Your task to perform on an android device: Go to privacy settings Image 0: 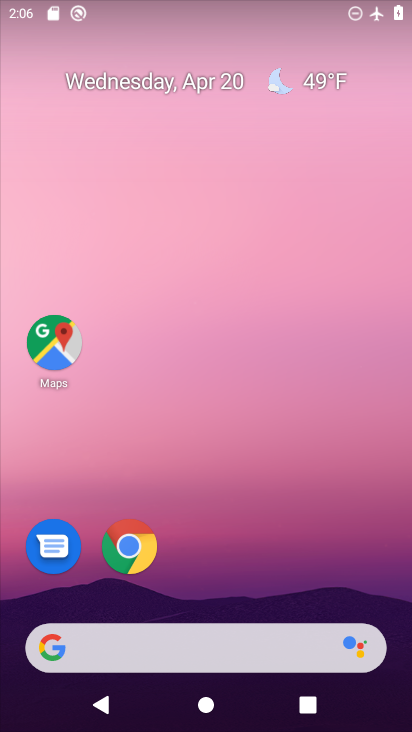
Step 0: drag from (215, 472) to (310, 1)
Your task to perform on an android device: Go to privacy settings Image 1: 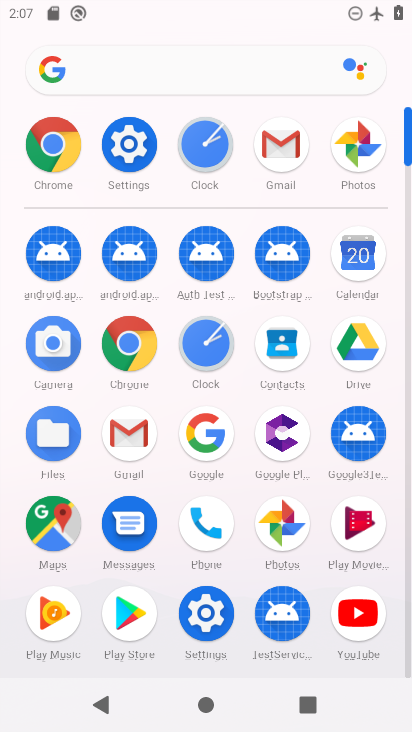
Step 1: click (144, 139)
Your task to perform on an android device: Go to privacy settings Image 2: 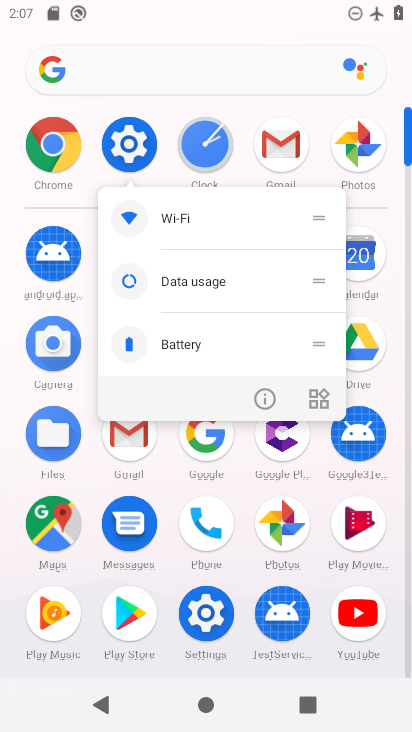
Step 2: click (142, 139)
Your task to perform on an android device: Go to privacy settings Image 3: 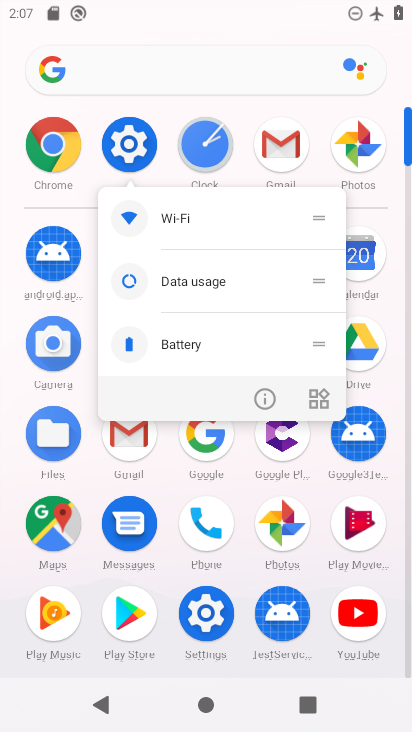
Step 3: click (123, 140)
Your task to perform on an android device: Go to privacy settings Image 4: 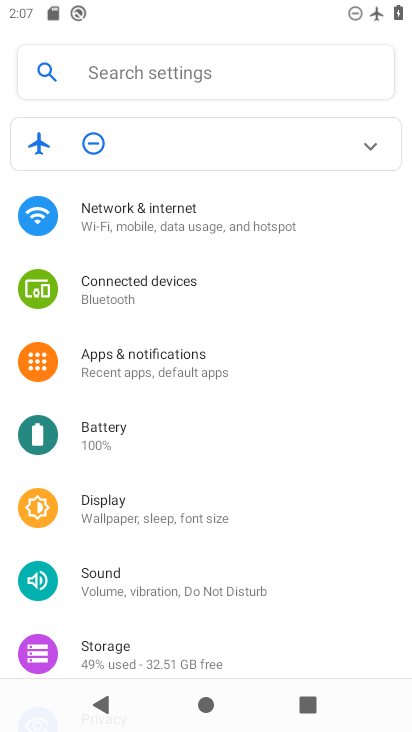
Step 4: drag from (179, 588) to (297, 90)
Your task to perform on an android device: Go to privacy settings Image 5: 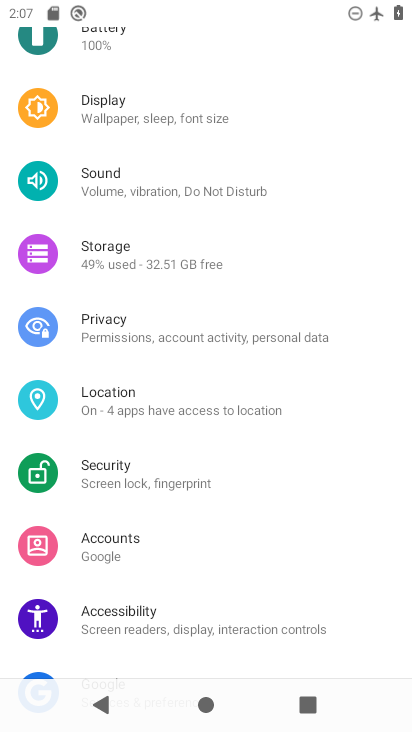
Step 5: click (126, 318)
Your task to perform on an android device: Go to privacy settings Image 6: 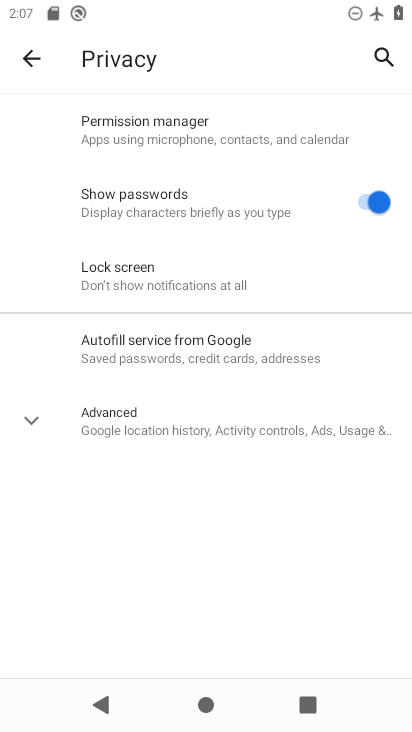
Step 6: task complete